Your task to perform on an android device: Is it going to rain today? Image 0: 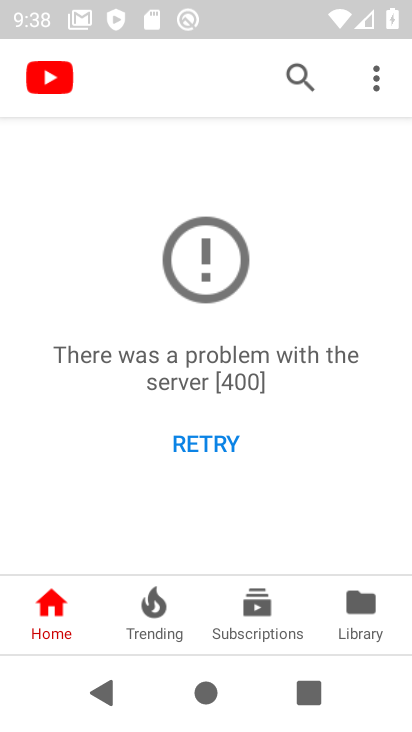
Step 0: press home button
Your task to perform on an android device: Is it going to rain today? Image 1: 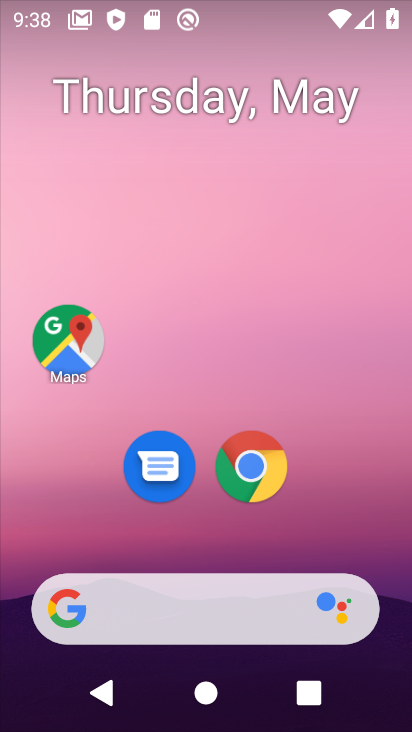
Step 1: drag from (344, 520) to (324, 77)
Your task to perform on an android device: Is it going to rain today? Image 2: 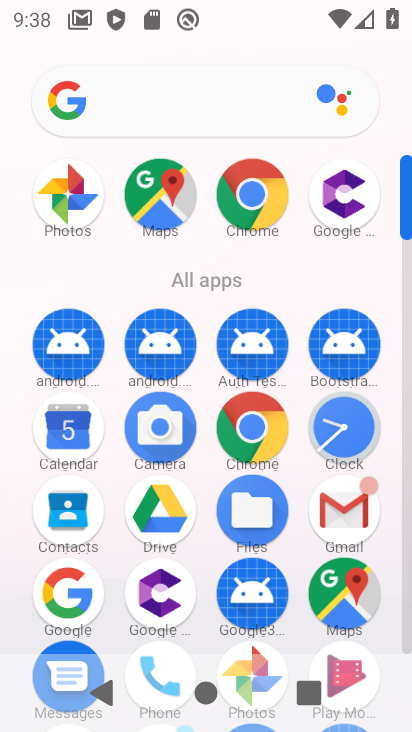
Step 2: press home button
Your task to perform on an android device: Is it going to rain today? Image 3: 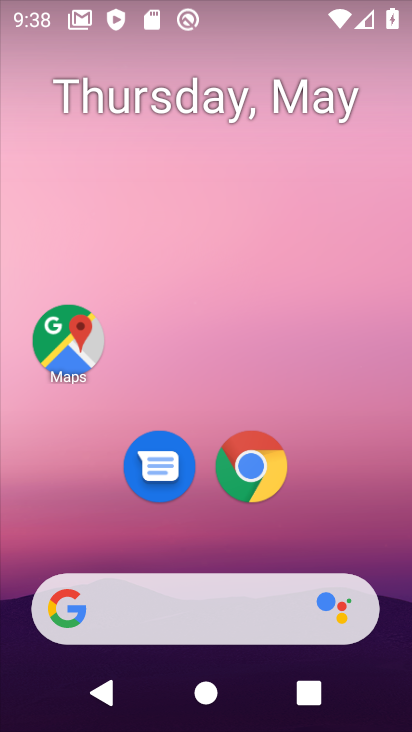
Step 3: click (262, 461)
Your task to perform on an android device: Is it going to rain today? Image 4: 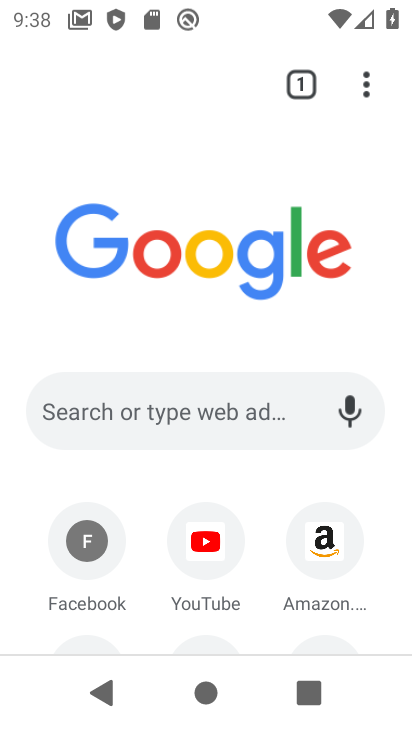
Step 4: click (228, 406)
Your task to perform on an android device: Is it going to rain today? Image 5: 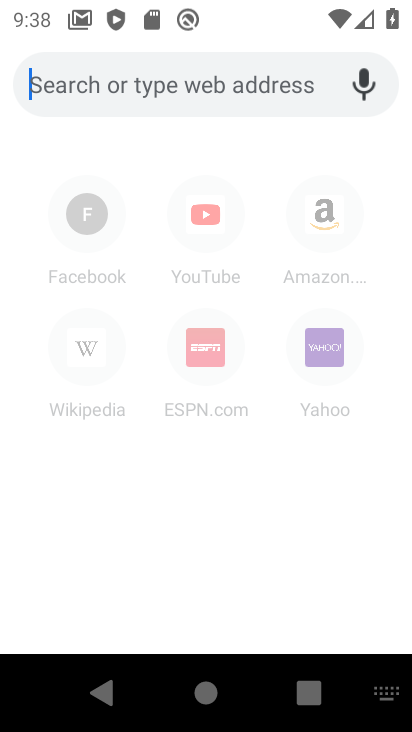
Step 5: type "weather"
Your task to perform on an android device: Is it going to rain today? Image 6: 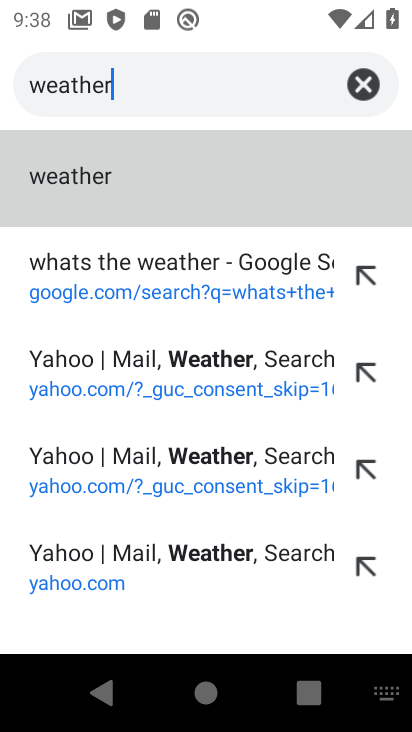
Step 6: click (122, 196)
Your task to perform on an android device: Is it going to rain today? Image 7: 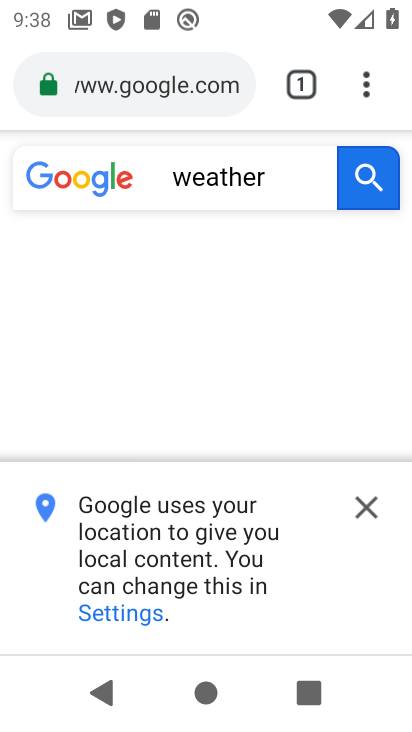
Step 7: click (370, 498)
Your task to perform on an android device: Is it going to rain today? Image 8: 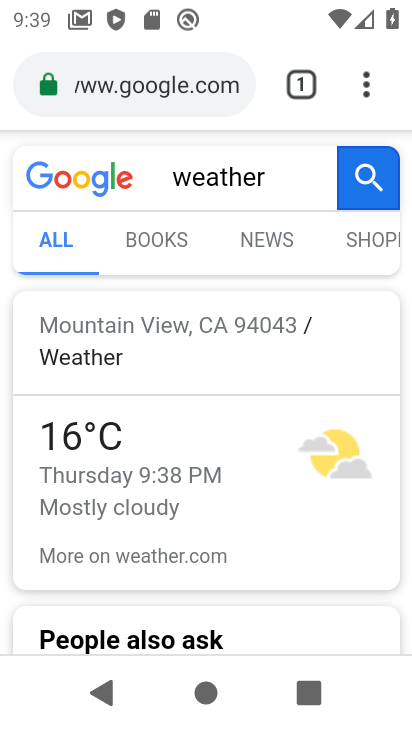
Step 8: click (174, 496)
Your task to perform on an android device: Is it going to rain today? Image 9: 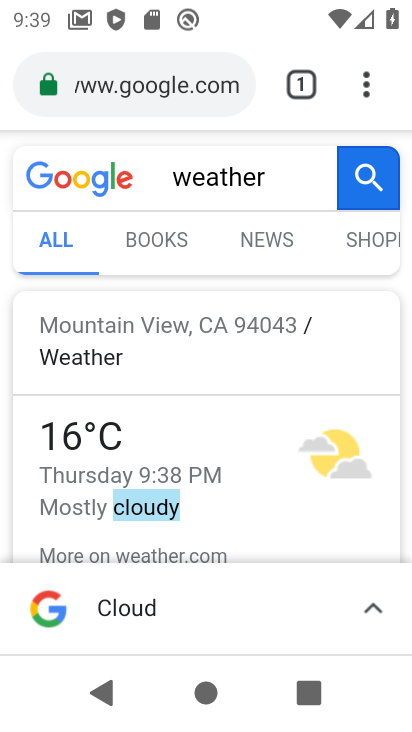
Step 9: click (275, 508)
Your task to perform on an android device: Is it going to rain today? Image 10: 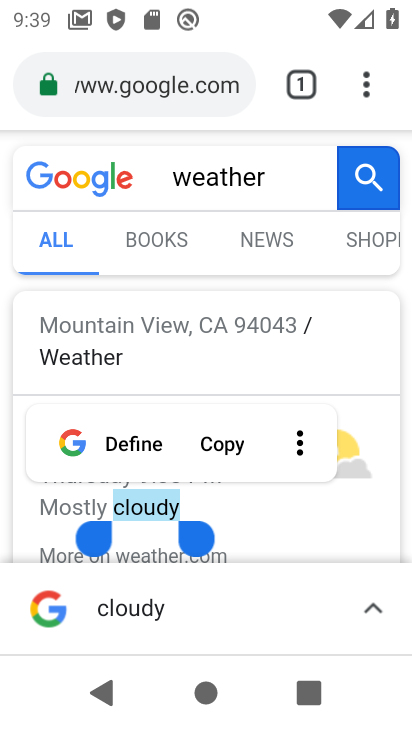
Step 10: click (253, 481)
Your task to perform on an android device: Is it going to rain today? Image 11: 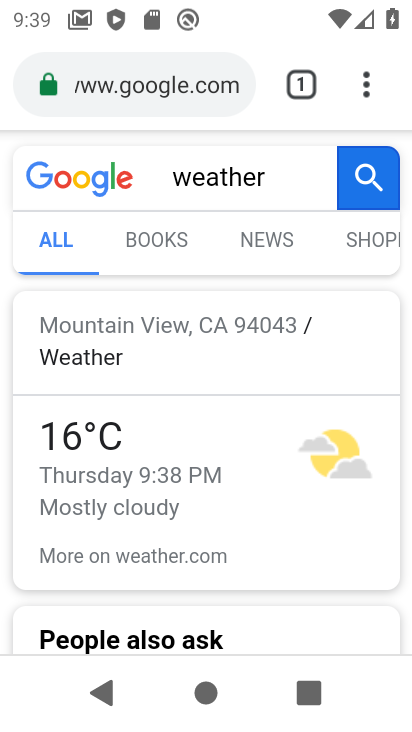
Step 11: drag from (310, 573) to (307, 254)
Your task to perform on an android device: Is it going to rain today? Image 12: 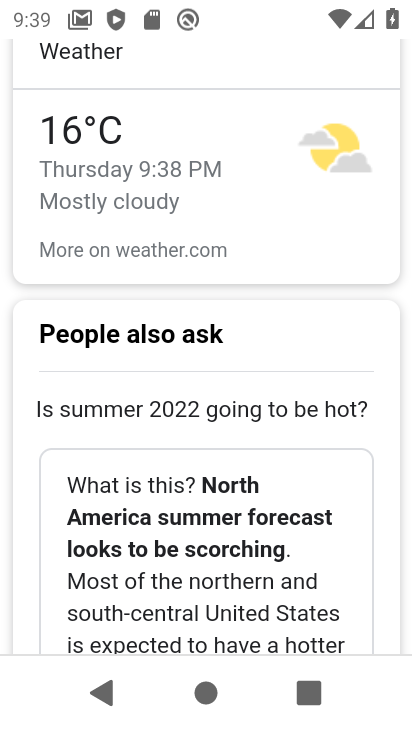
Step 12: drag from (279, 267) to (227, 684)
Your task to perform on an android device: Is it going to rain today? Image 13: 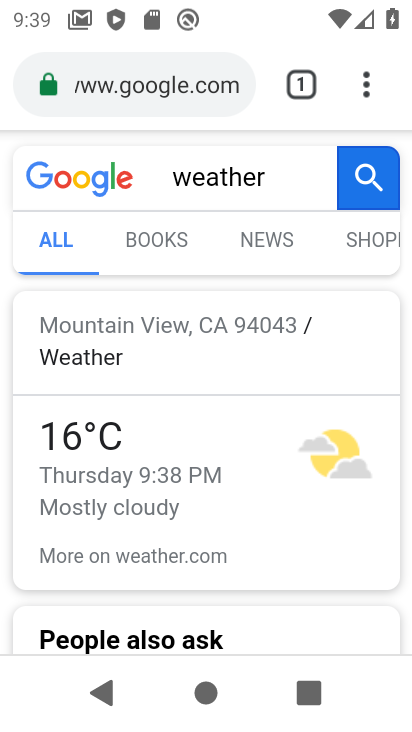
Step 13: click (179, 89)
Your task to perform on an android device: Is it going to rain today? Image 14: 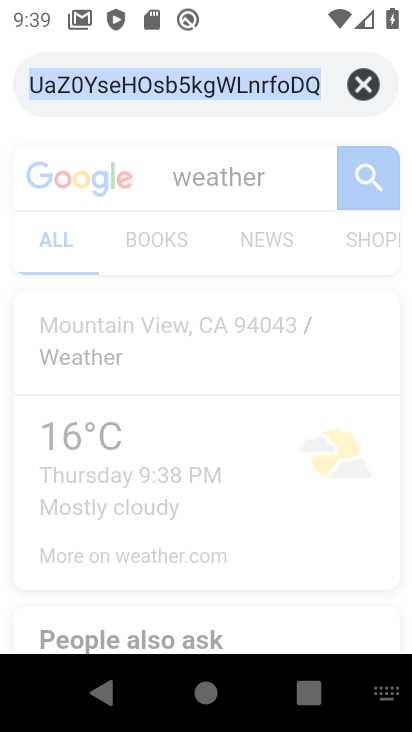
Step 14: type "is it going to rain today"
Your task to perform on an android device: Is it going to rain today? Image 15: 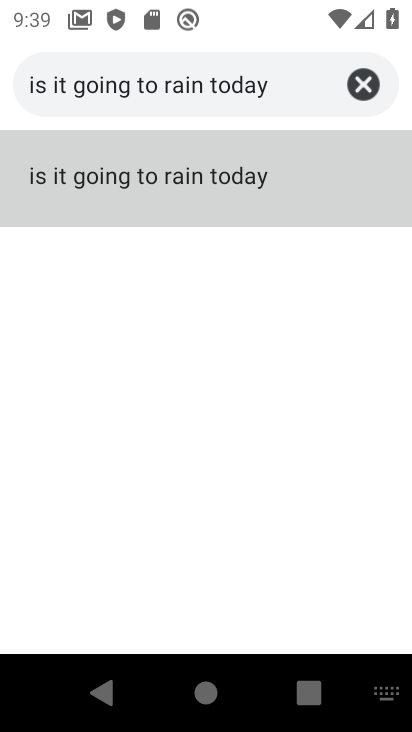
Step 15: click (190, 195)
Your task to perform on an android device: Is it going to rain today? Image 16: 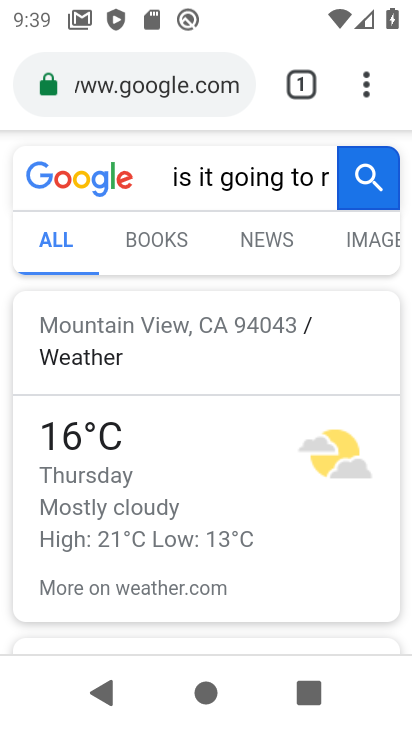
Step 16: task complete